Your task to perform on an android device: Go to Reddit.com Image 0: 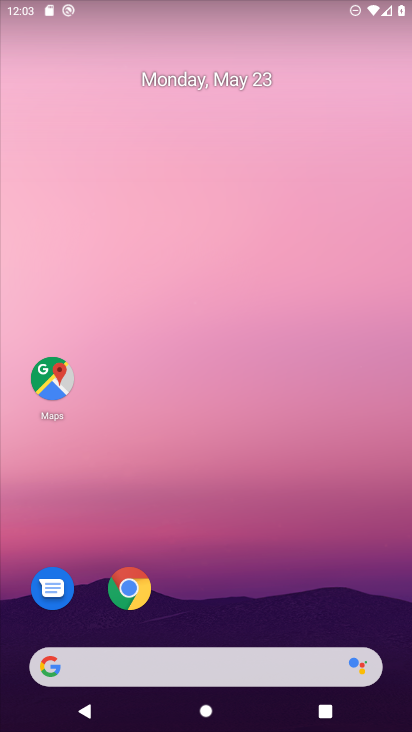
Step 0: drag from (251, 684) to (265, 171)
Your task to perform on an android device: Go to Reddit.com Image 1: 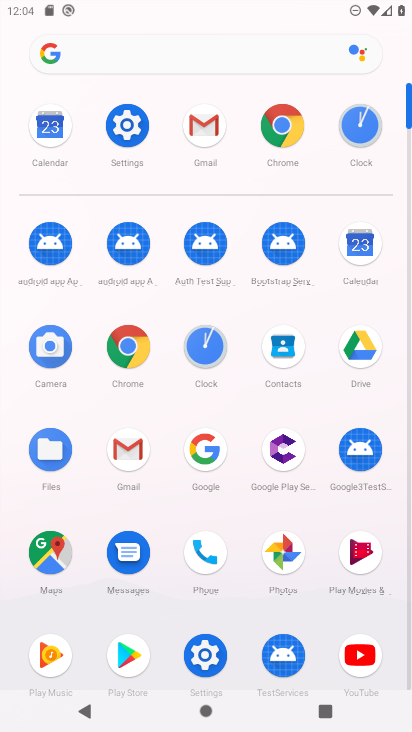
Step 1: click (275, 123)
Your task to perform on an android device: Go to Reddit.com Image 2: 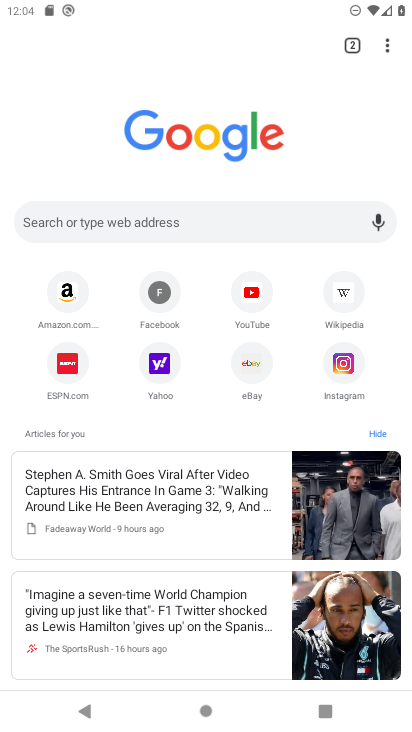
Step 2: click (136, 218)
Your task to perform on an android device: Go to Reddit.com Image 3: 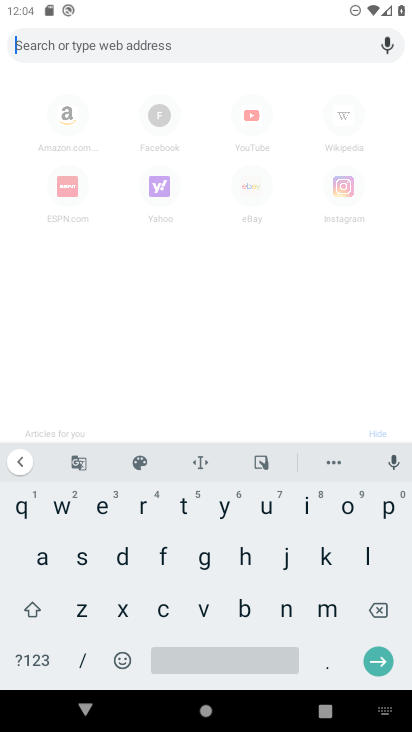
Step 3: click (136, 508)
Your task to perform on an android device: Go to Reddit.com Image 4: 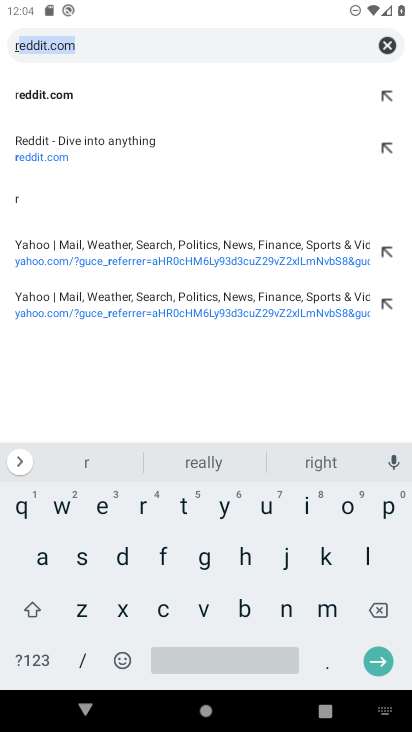
Step 4: click (99, 510)
Your task to perform on an android device: Go to Reddit.com Image 5: 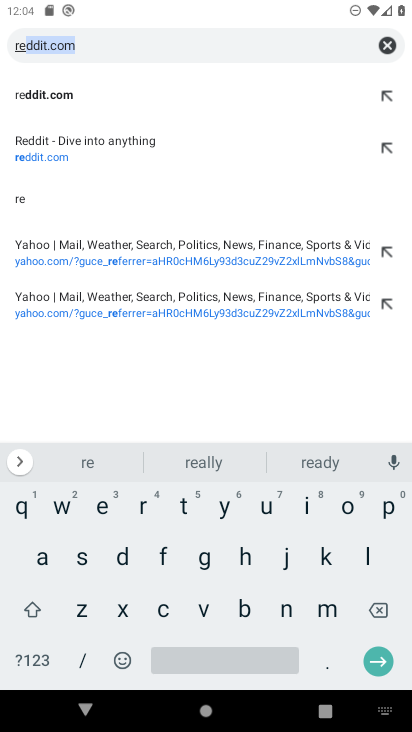
Step 5: click (112, 52)
Your task to perform on an android device: Go to Reddit.com Image 6: 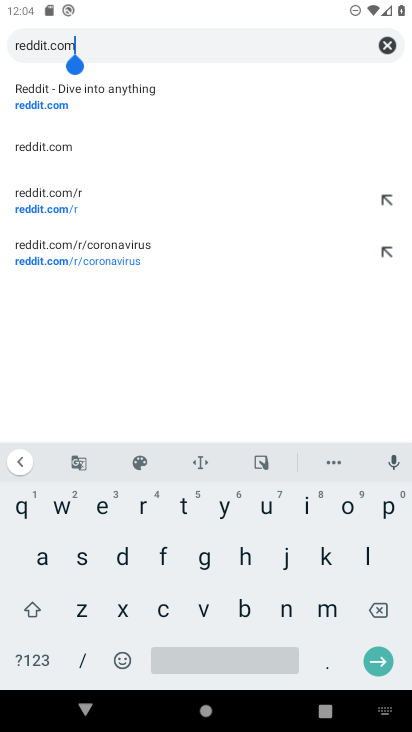
Step 6: click (373, 659)
Your task to perform on an android device: Go to Reddit.com Image 7: 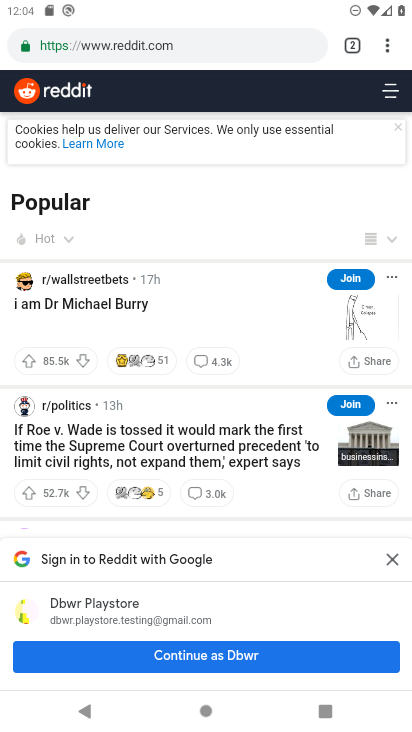
Step 7: task complete